Your task to perform on an android device: allow cookies in the chrome app Image 0: 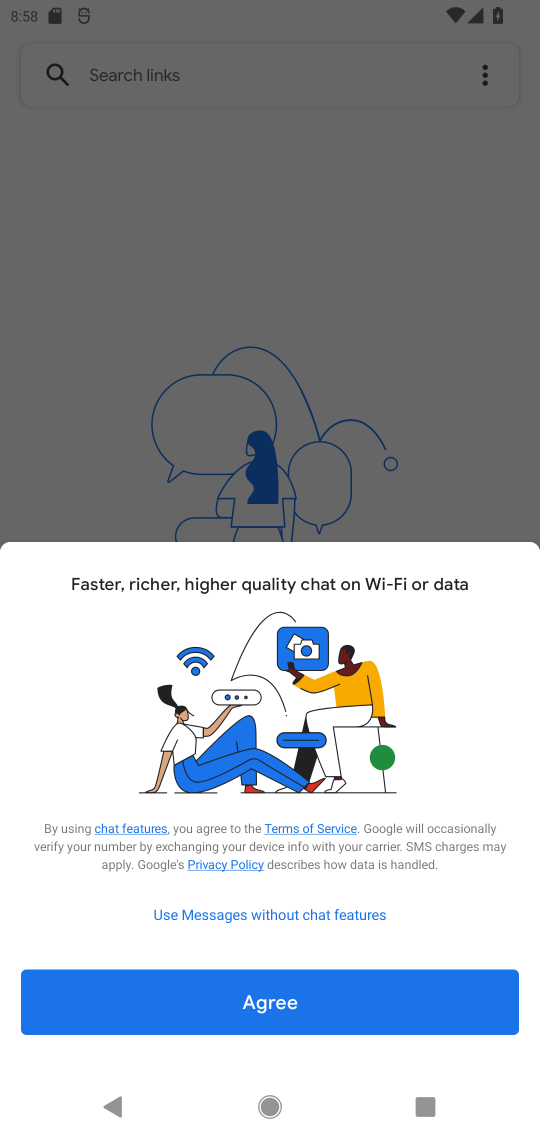
Step 0: press home button
Your task to perform on an android device: allow cookies in the chrome app Image 1: 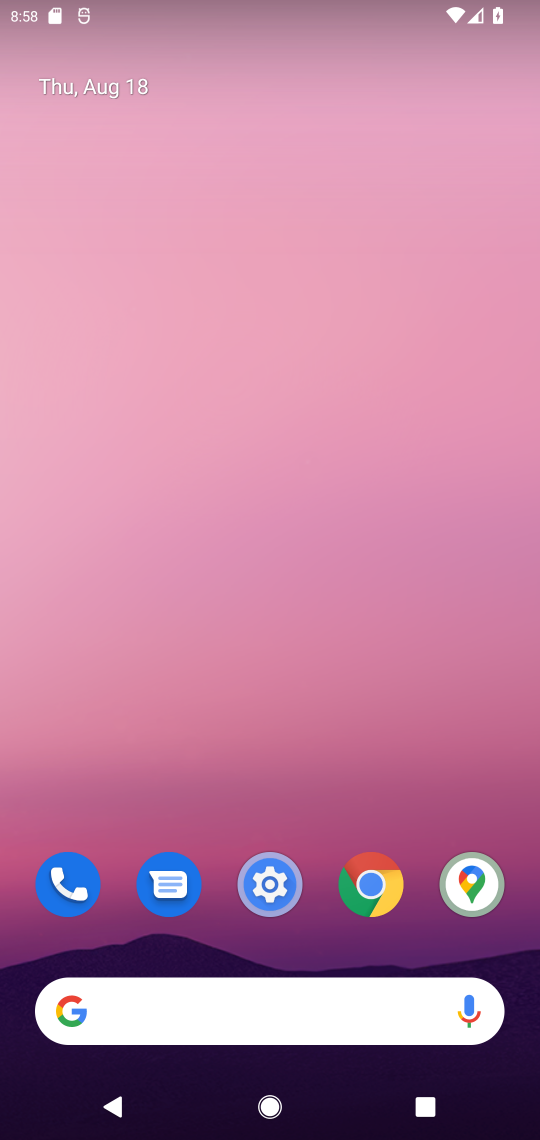
Step 1: click (383, 872)
Your task to perform on an android device: allow cookies in the chrome app Image 2: 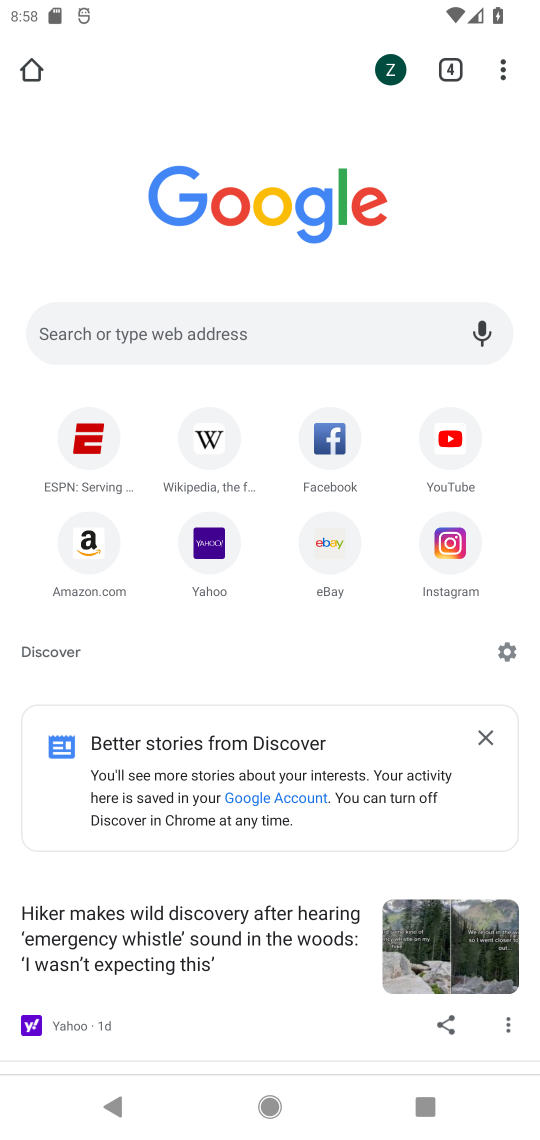
Step 2: click (516, 65)
Your task to perform on an android device: allow cookies in the chrome app Image 3: 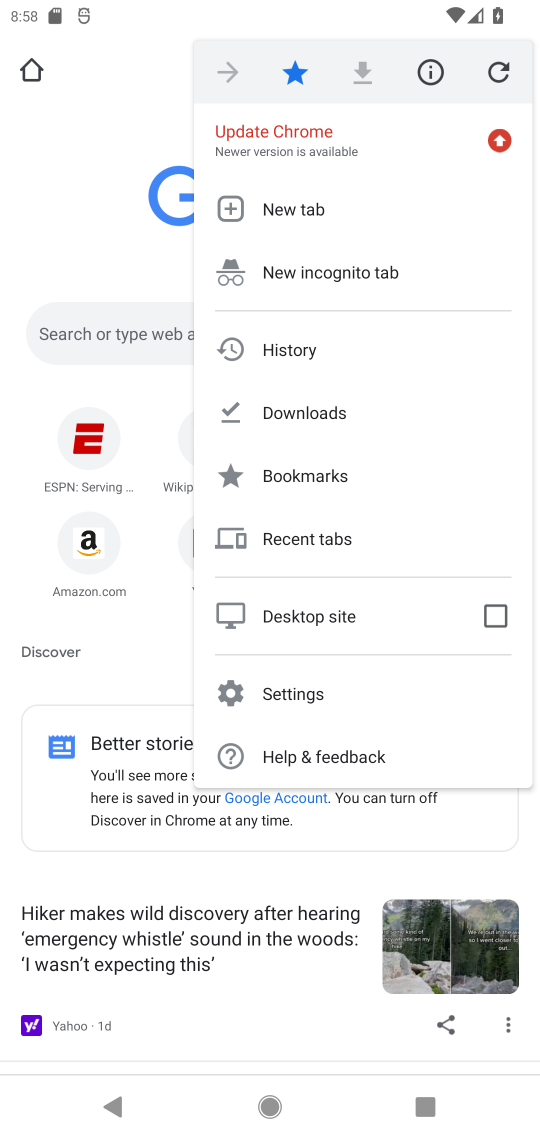
Step 3: click (366, 705)
Your task to perform on an android device: allow cookies in the chrome app Image 4: 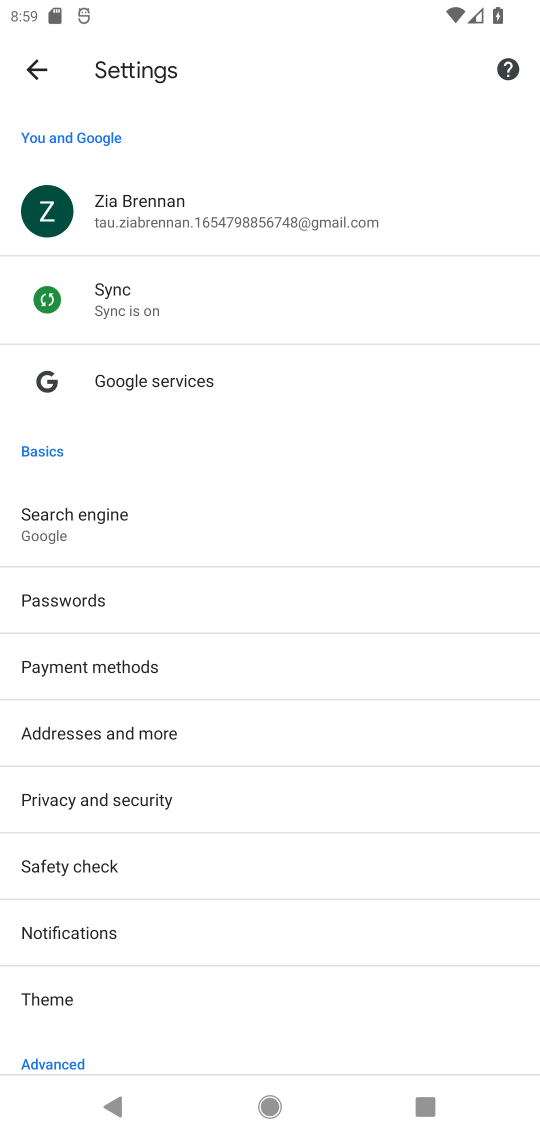
Step 4: drag from (167, 1005) to (215, 230)
Your task to perform on an android device: allow cookies in the chrome app Image 5: 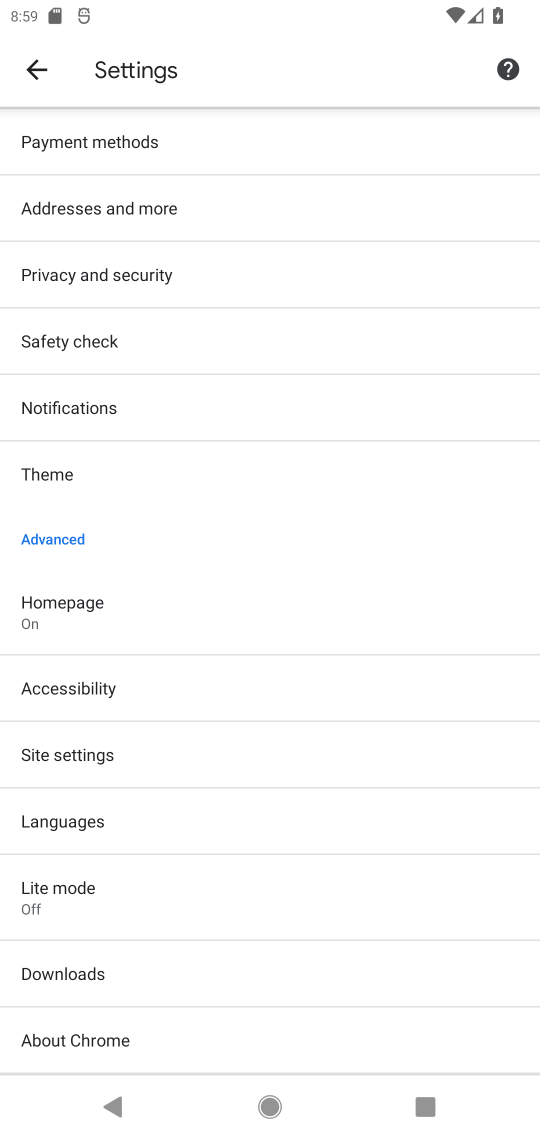
Step 5: drag from (275, 968) to (274, 234)
Your task to perform on an android device: allow cookies in the chrome app Image 6: 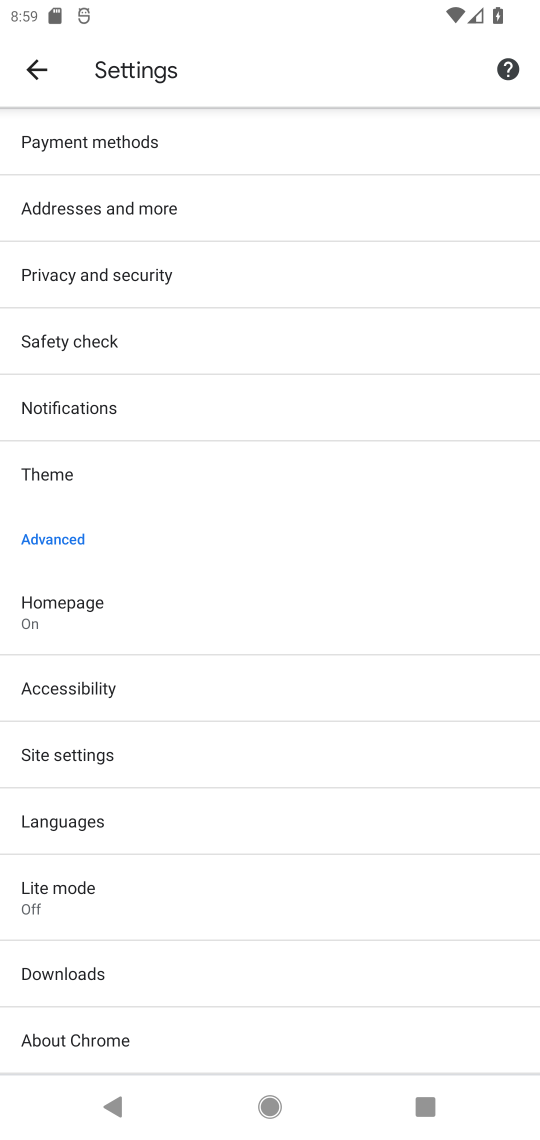
Step 6: click (73, 750)
Your task to perform on an android device: allow cookies in the chrome app Image 7: 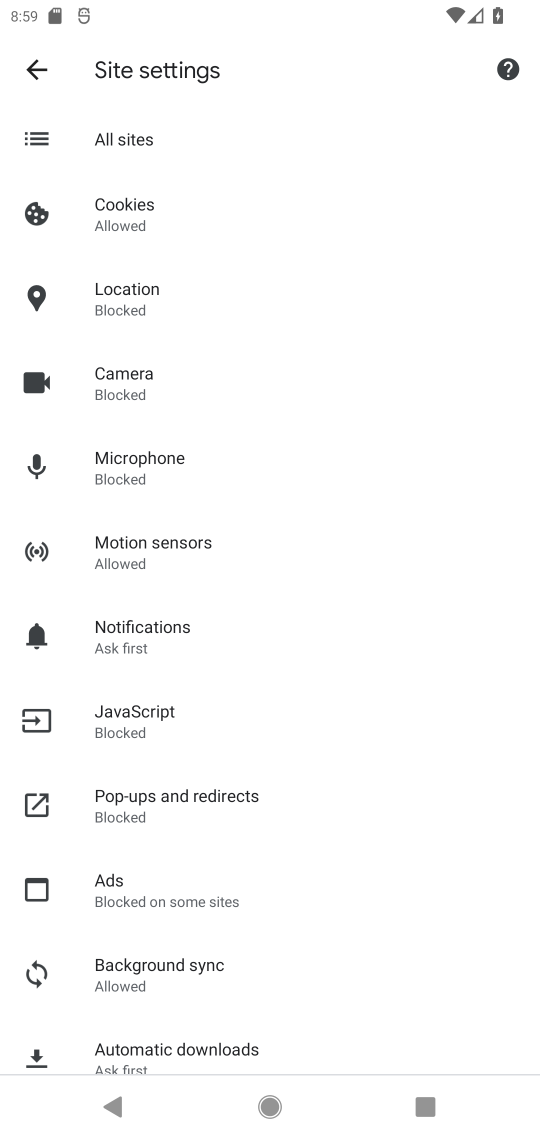
Step 7: click (129, 238)
Your task to perform on an android device: allow cookies in the chrome app Image 8: 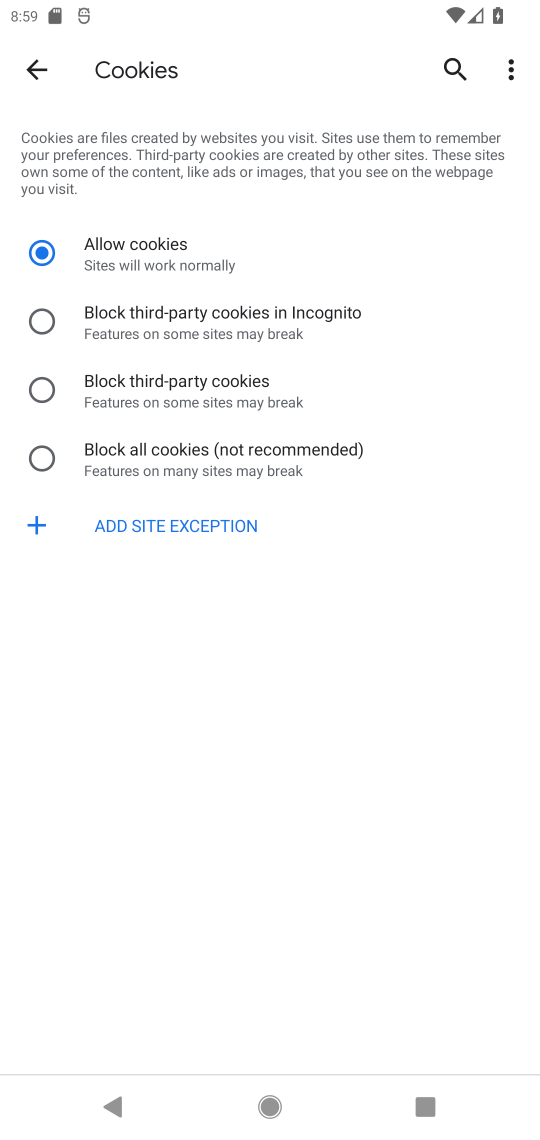
Step 8: task complete